Your task to perform on an android device: When is my next appointment? Image 0: 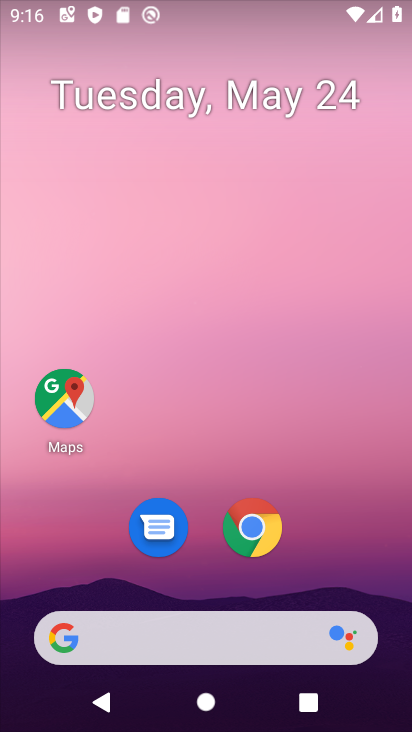
Step 0: drag from (196, 591) to (248, 50)
Your task to perform on an android device: When is my next appointment? Image 1: 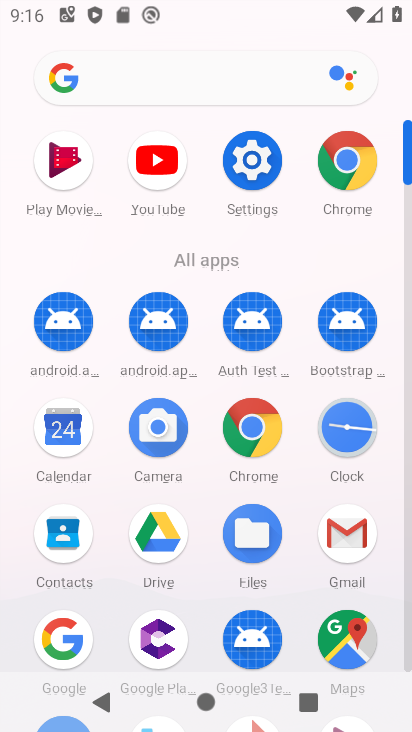
Step 1: click (64, 413)
Your task to perform on an android device: When is my next appointment? Image 2: 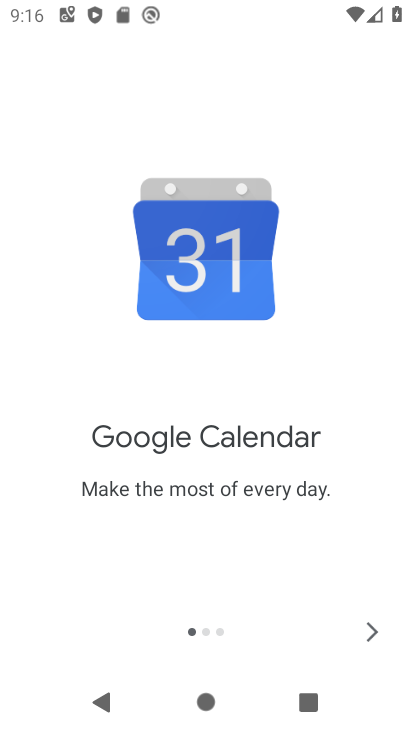
Step 2: task complete